Your task to perform on an android device: Go to Google Image 0: 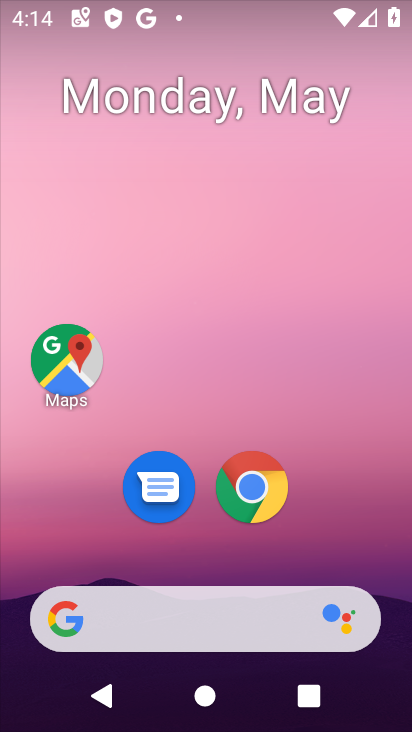
Step 0: drag from (373, 543) to (343, 11)
Your task to perform on an android device: Go to Google Image 1: 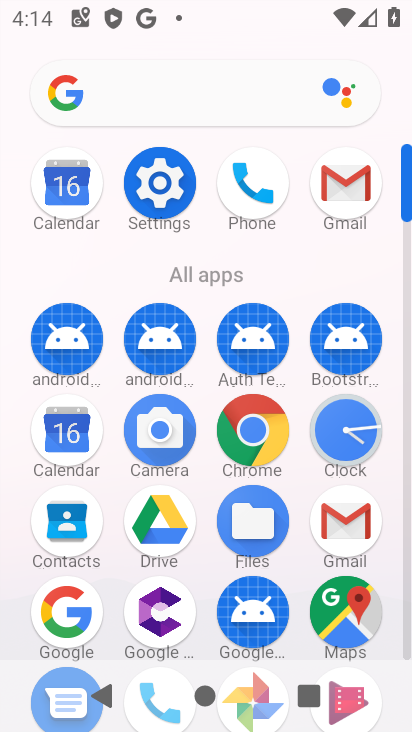
Step 1: click (76, 610)
Your task to perform on an android device: Go to Google Image 2: 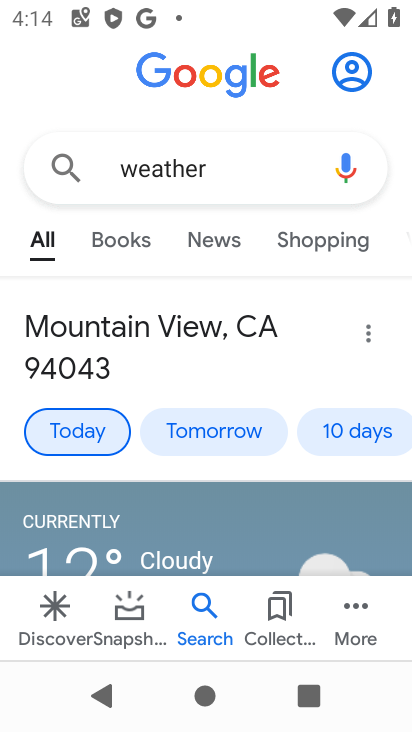
Step 2: task complete